Your task to perform on an android device: Search for the ikea sjalv lamp Image 0: 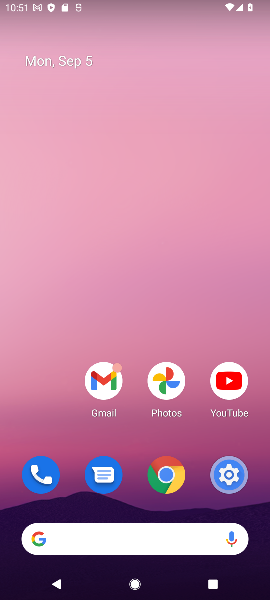
Step 0: click (114, 538)
Your task to perform on an android device: Search for the ikea sjalv lamp Image 1: 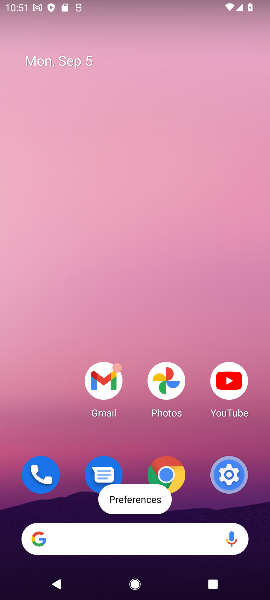
Step 1: click (130, 538)
Your task to perform on an android device: Search for the ikea sjalv lamp Image 2: 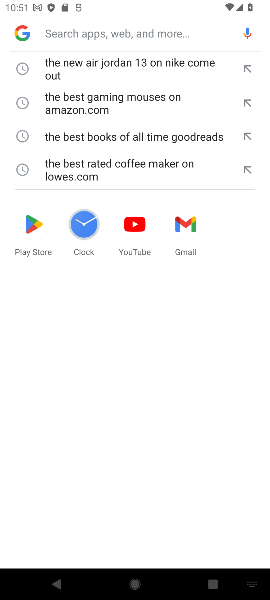
Step 2: type "the ikea sjalv lamp"
Your task to perform on an android device: Search for the ikea sjalv lamp Image 3: 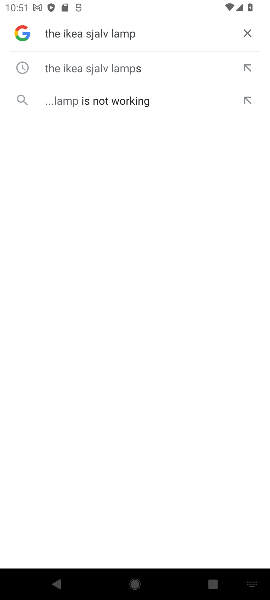
Step 3: click (103, 71)
Your task to perform on an android device: Search for the ikea sjalv lamp Image 4: 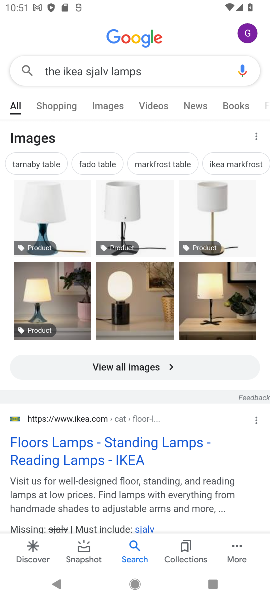
Step 4: task complete